Your task to perform on an android device: read, delete, or share a saved page in the chrome app Image 0: 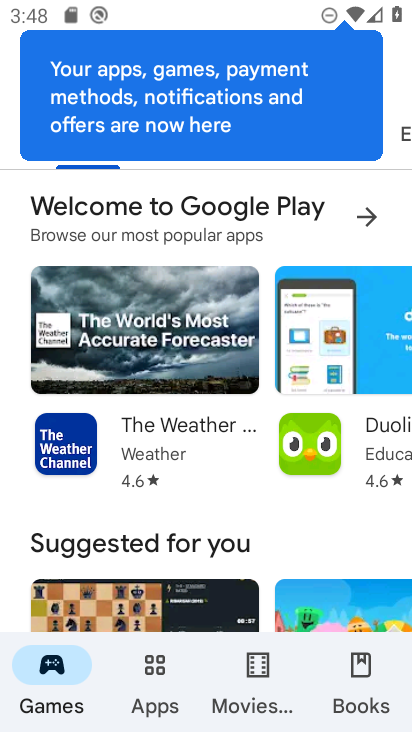
Step 0: press home button
Your task to perform on an android device: read, delete, or share a saved page in the chrome app Image 1: 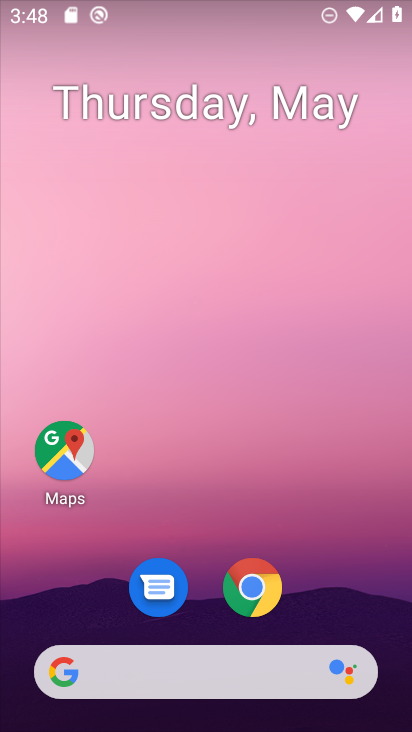
Step 1: drag from (373, 600) to (354, 201)
Your task to perform on an android device: read, delete, or share a saved page in the chrome app Image 2: 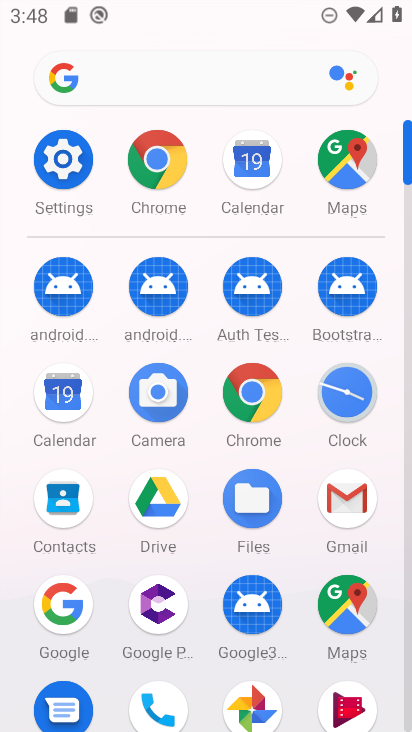
Step 2: click (268, 397)
Your task to perform on an android device: read, delete, or share a saved page in the chrome app Image 3: 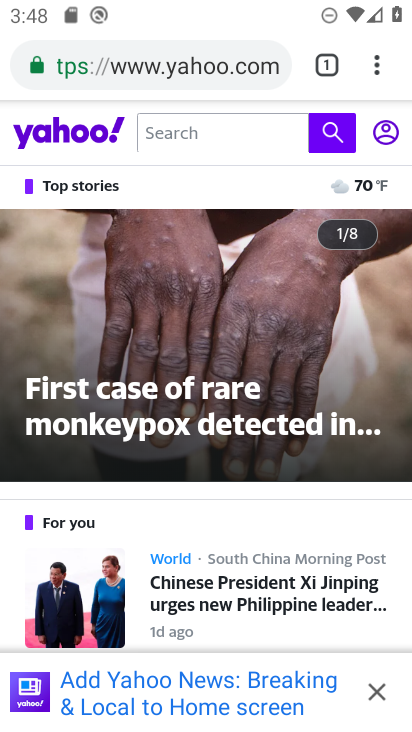
Step 3: click (376, 69)
Your task to perform on an android device: read, delete, or share a saved page in the chrome app Image 4: 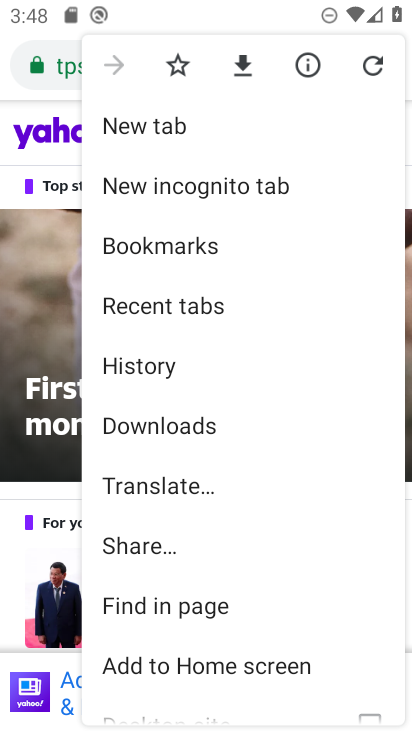
Step 4: drag from (282, 588) to (308, 438)
Your task to perform on an android device: read, delete, or share a saved page in the chrome app Image 5: 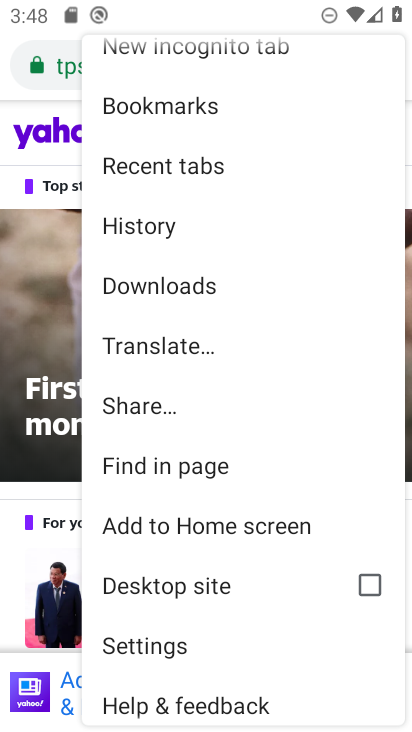
Step 5: click (193, 300)
Your task to perform on an android device: read, delete, or share a saved page in the chrome app Image 6: 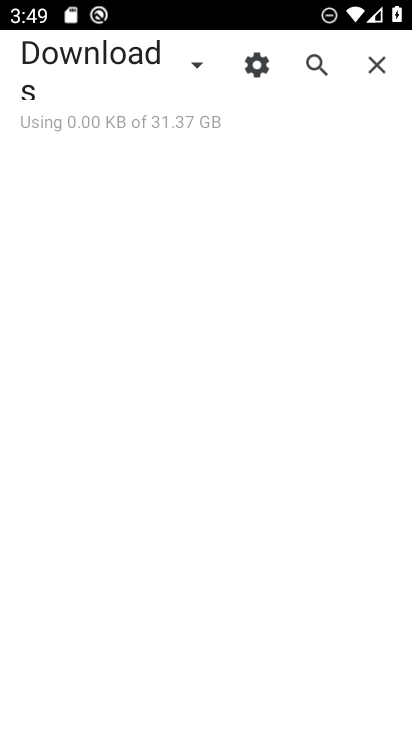
Step 6: click (200, 75)
Your task to perform on an android device: read, delete, or share a saved page in the chrome app Image 7: 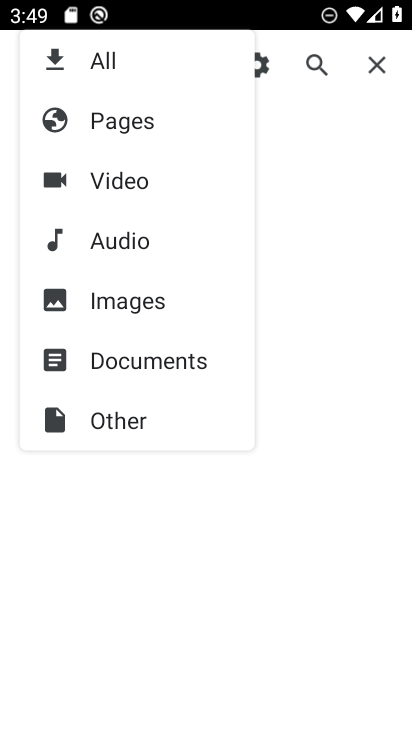
Step 7: click (118, 123)
Your task to perform on an android device: read, delete, or share a saved page in the chrome app Image 8: 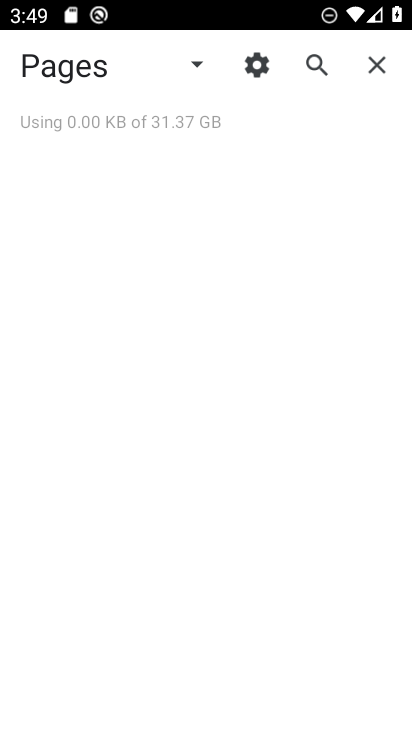
Step 8: task complete